Your task to perform on an android device: change the upload size in google photos Image 0: 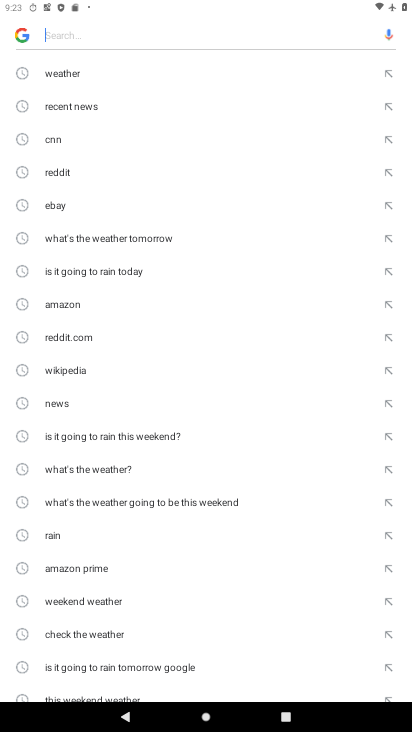
Step 0: press home button
Your task to perform on an android device: change the upload size in google photos Image 1: 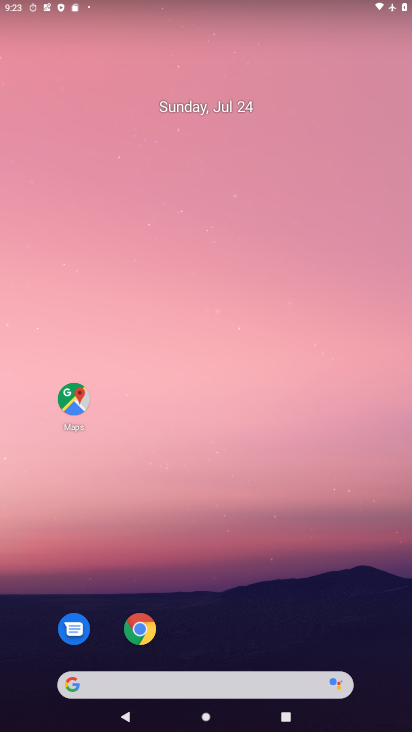
Step 1: drag from (211, 669) to (208, 124)
Your task to perform on an android device: change the upload size in google photos Image 2: 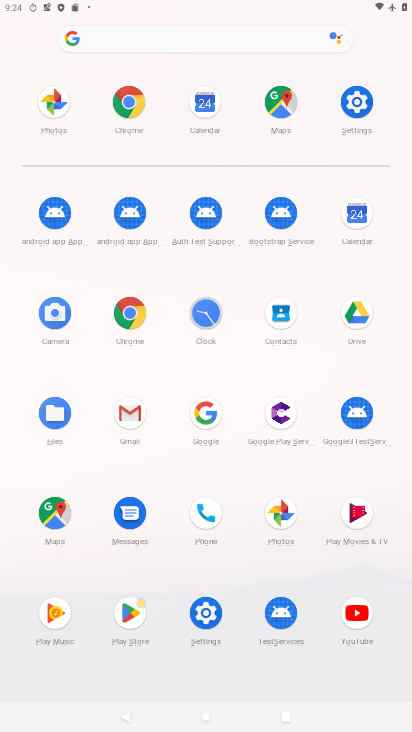
Step 2: click (277, 512)
Your task to perform on an android device: change the upload size in google photos Image 3: 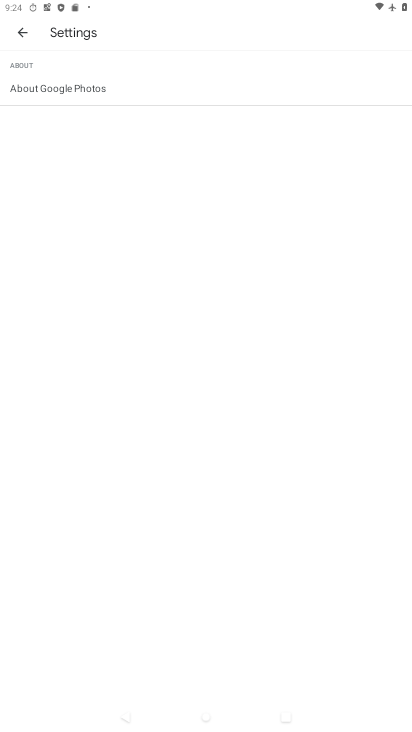
Step 3: click (22, 32)
Your task to perform on an android device: change the upload size in google photos Image 4: 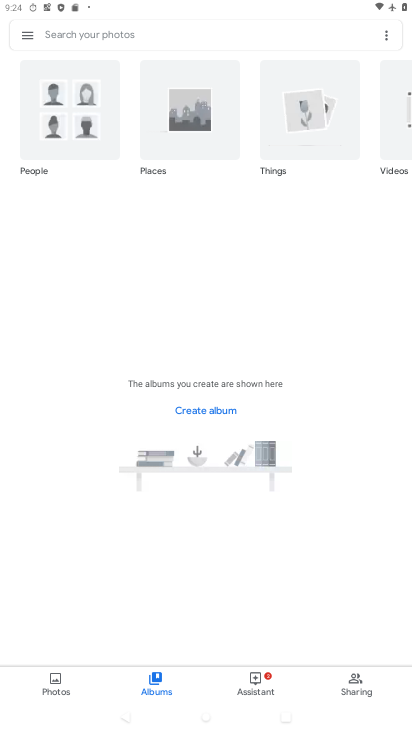
Step 4: click (30, 40)
Your task to perform on an android device: change the upload size in google photos Image 5: 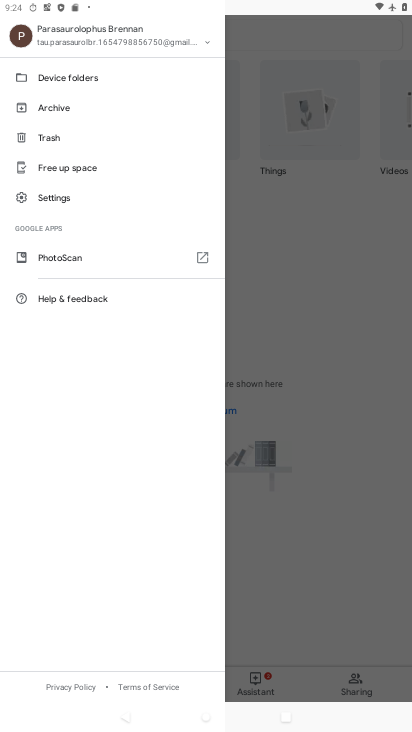
Step 5: click (50, 202)
Your task to perform on an android device: change the upload size in google photos Image 6: 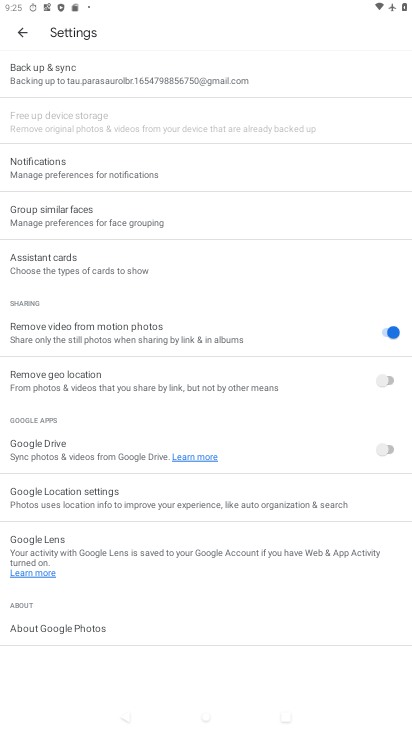
Step 6: click (89, 81)
Your task to perform on an android device: change the upload size in google photos Image 7: 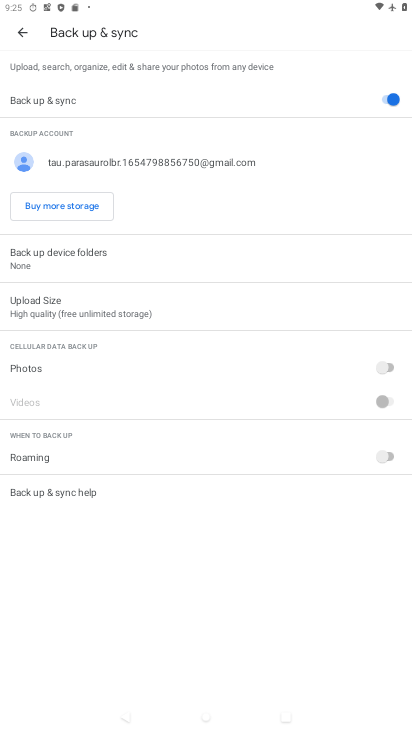
Step 7: click (66, 302)
Your task to perform on an android device: change the upload size in google photos Image 8: 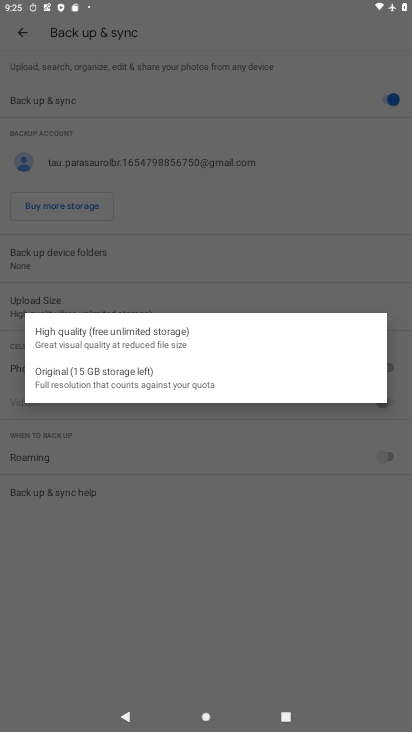
Step 8: click (68, 383)
Your task to perform on an android device: change the upload size in google photos Image 9: 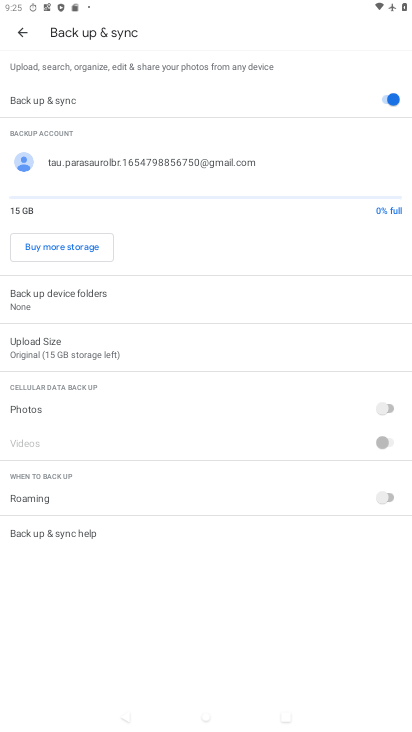
Step 9: task complete